Your task to perform on an android device: check data usage Image 0: 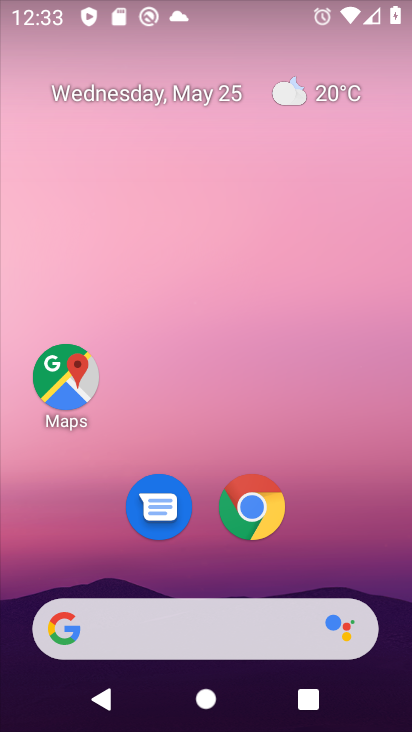
Step 0: drag from (340, 541) to (342, 222)
Your task to perform on an android device: check data usage Image 1: 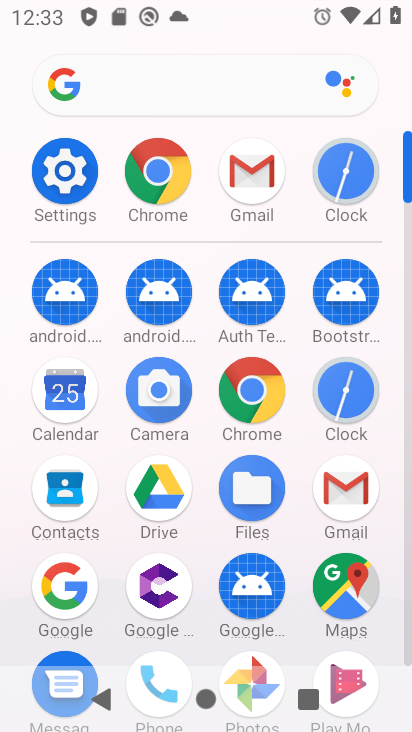
Step 1: click (49, 183)
Your task to perform on an android device: check data usage Image 2: 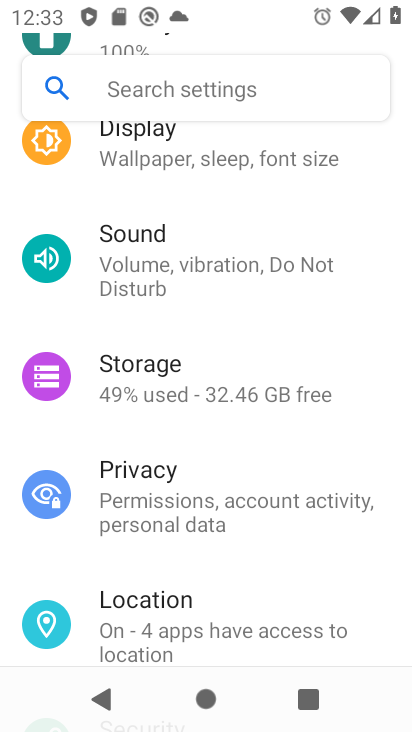
Step 2: drag from (254, 183) to (259, 464)
Your task to perform on an android device: check data usage Image 3: 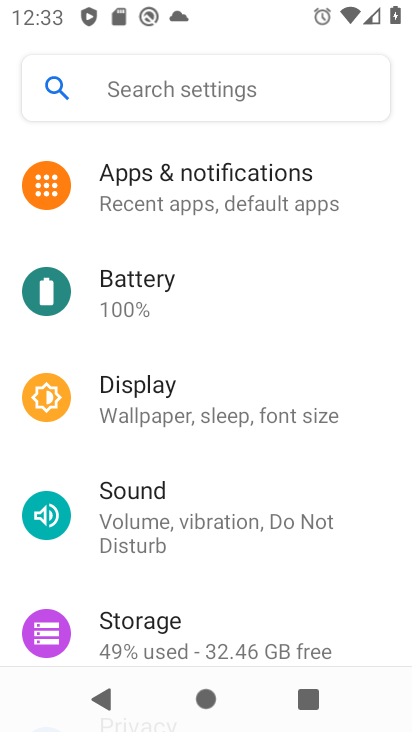
Step 3: drag from (226, 258) to (220, 520)
Your task to perform on an android device: check data usage Image 4: 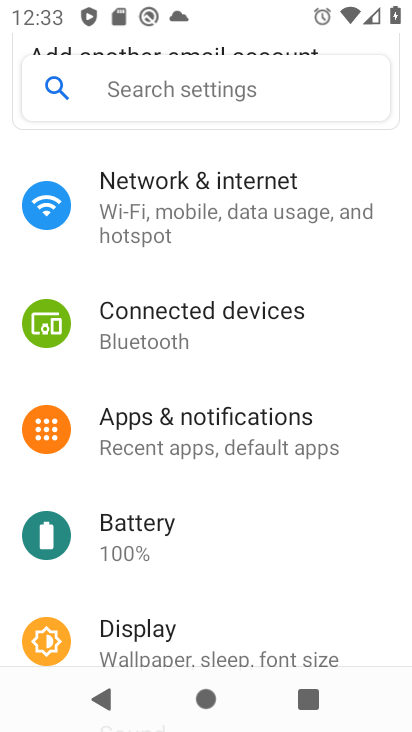
Step 4: click (192, 186)
Your task to perform on an android device: check data usage Image 5: 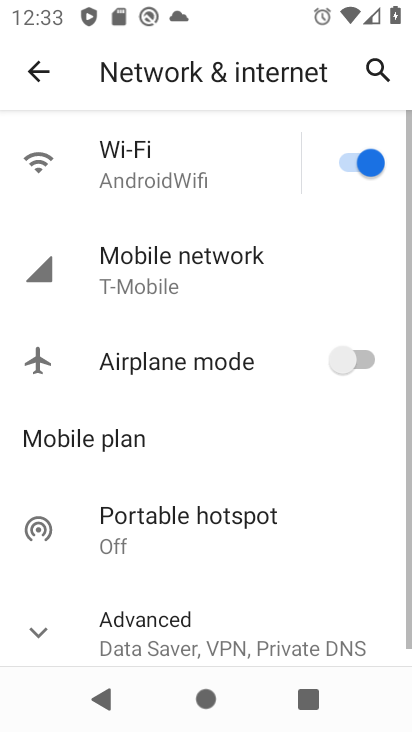
Step 5: click (158, 266)
Your task to perform on an android device: check data usage Image 6: 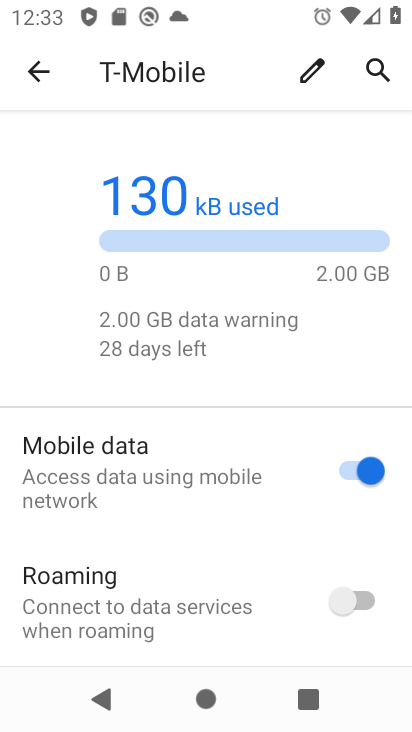
Step 6: task complete